Your task to perform on an android device: What's the news in theFalkland Islands? Image 0: 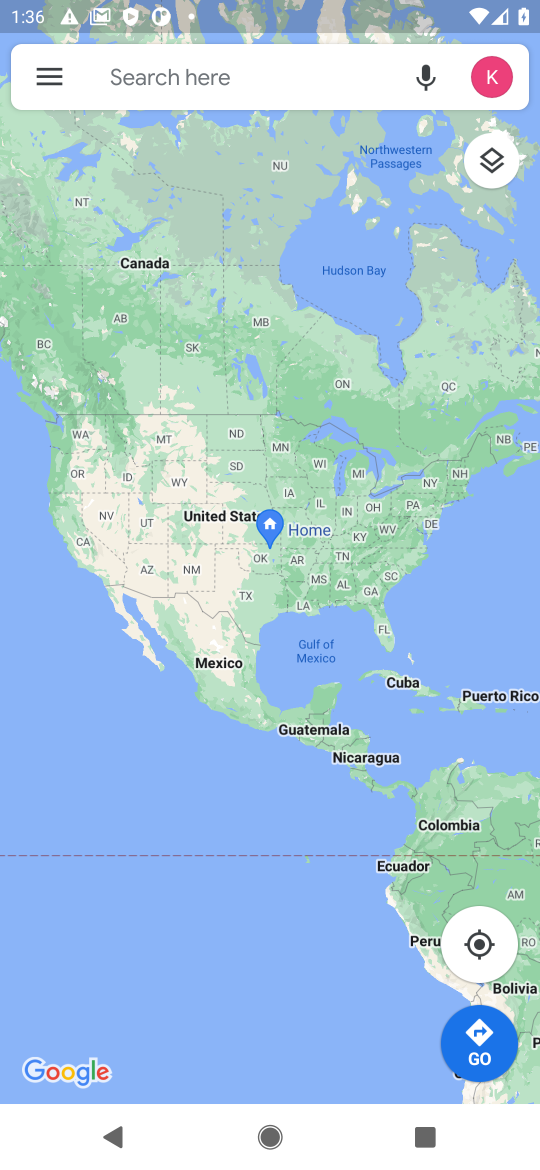
Step 0: press home button
Your task to perform on an android device: What's the news in theFalkland Islands? Image 1: 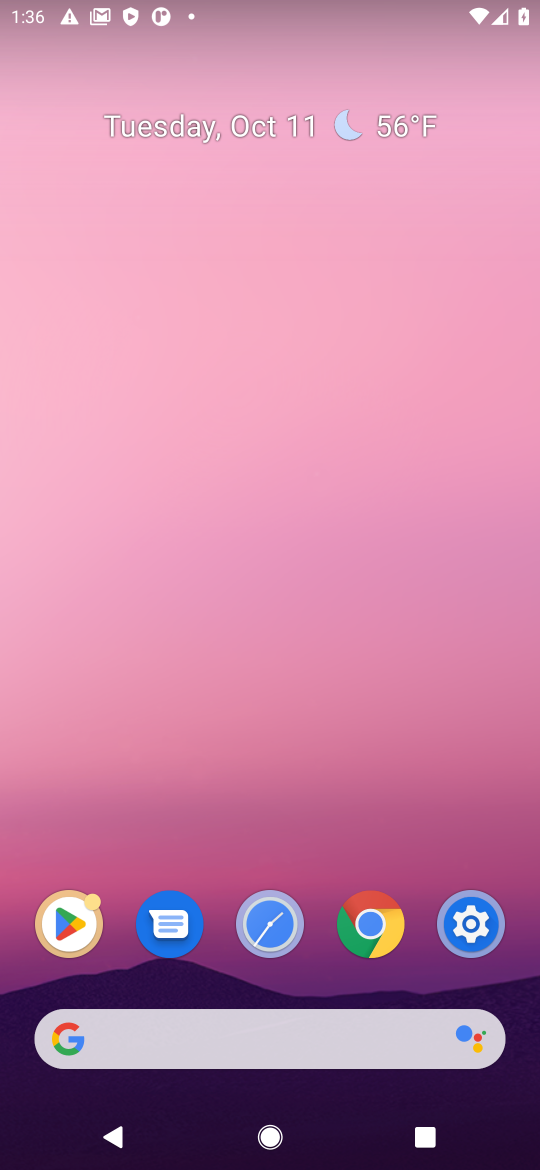
Step 1: drag from (303, 934) to (306, 92)
Your task to perform on an android device: What's the news in theFalkland Islands? Image 2: 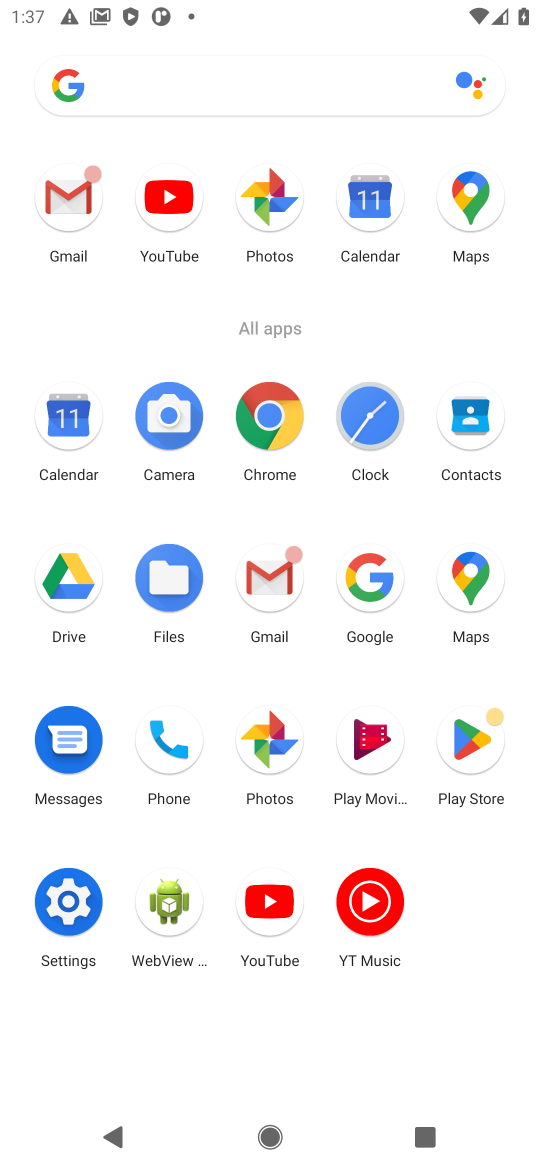
Step 2: click (272, 420)
Your task to perform on an android device: What's the news in theFalkland Islands? Image 3: 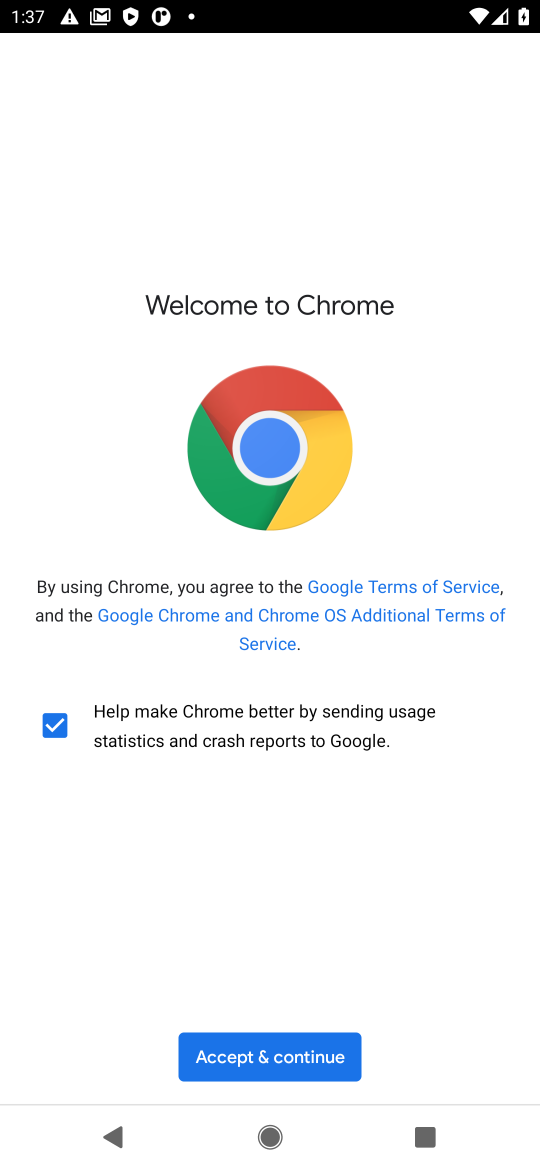
Step 3: click (275, 1046)
Your task to perform on an android device: What's the news in theFalkland Islands? Image 4: 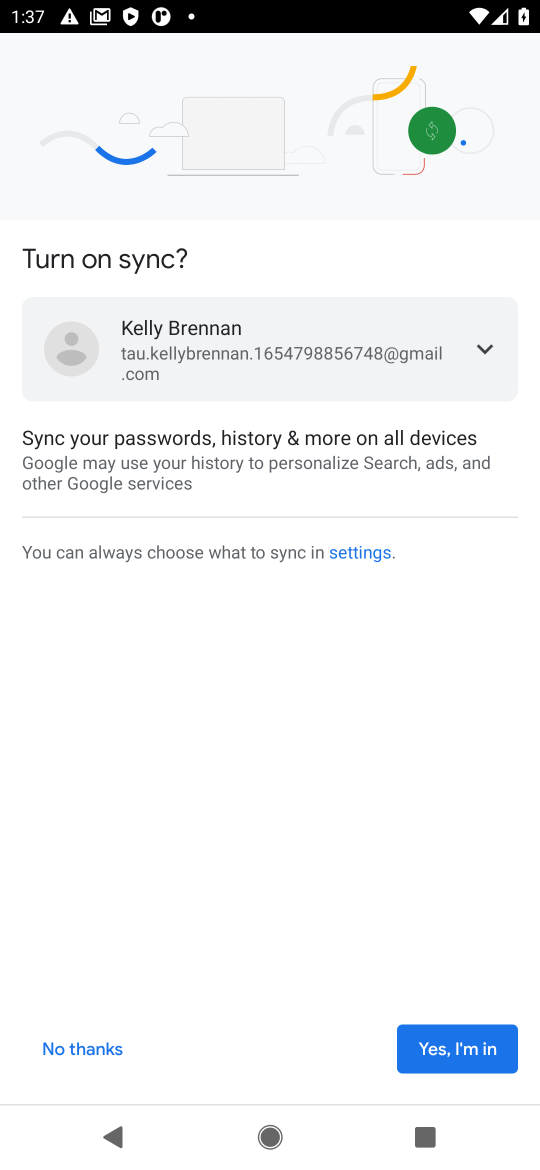
Step 4: click (474, 1049)
Your task to perform on an android device: What's the news in theFalkland Islands? Image 5: 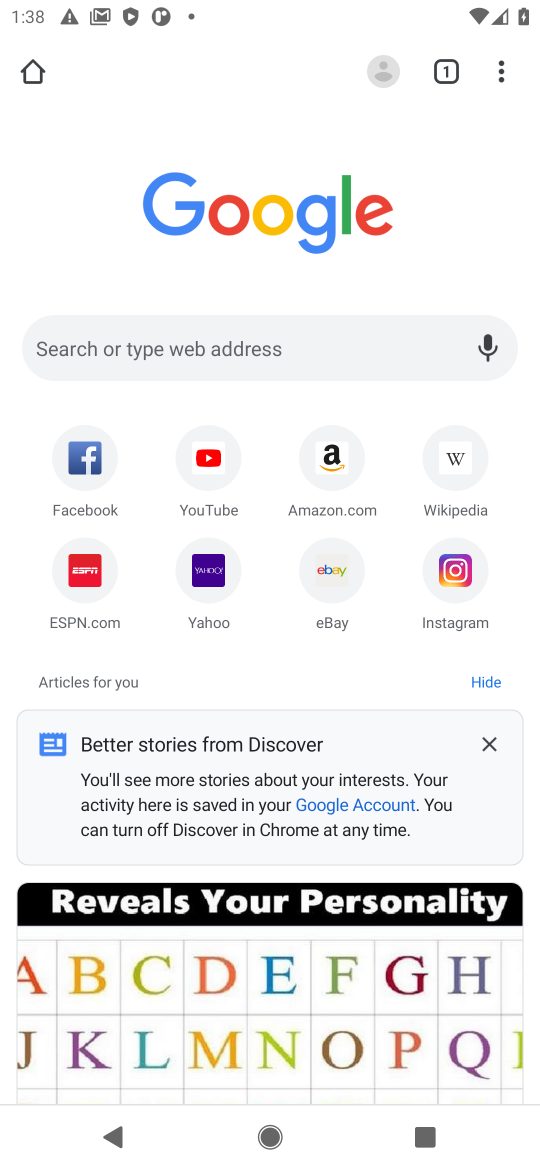
Step 5: press home button
Your task to perform on an android device: What's the news in theFalkland Islands? Image 6: 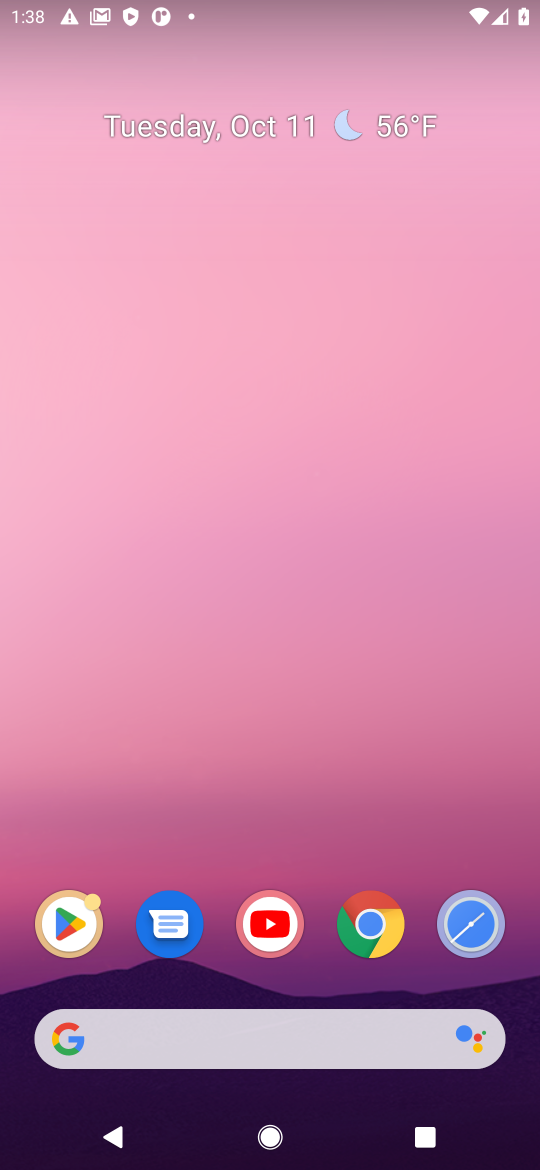
Step 6: click (375, 924)
Your task to perform on an android device: What's the news in theFalkland Islands? Image 7: 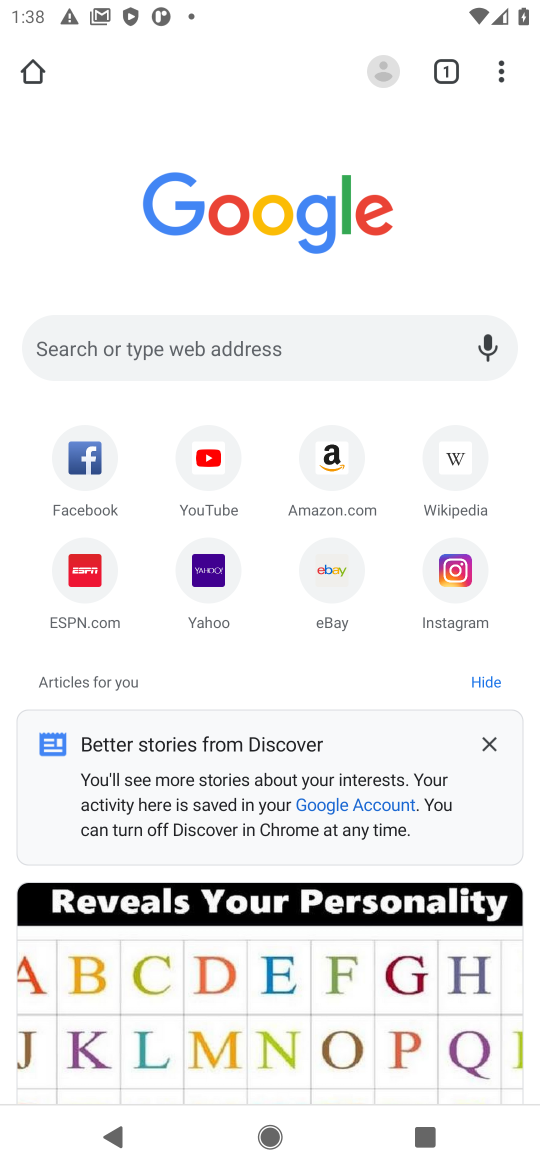
Step 7: click (250, 353)
Your task to perform on an android device: What's the news in theFalkland Islands? Image 8: 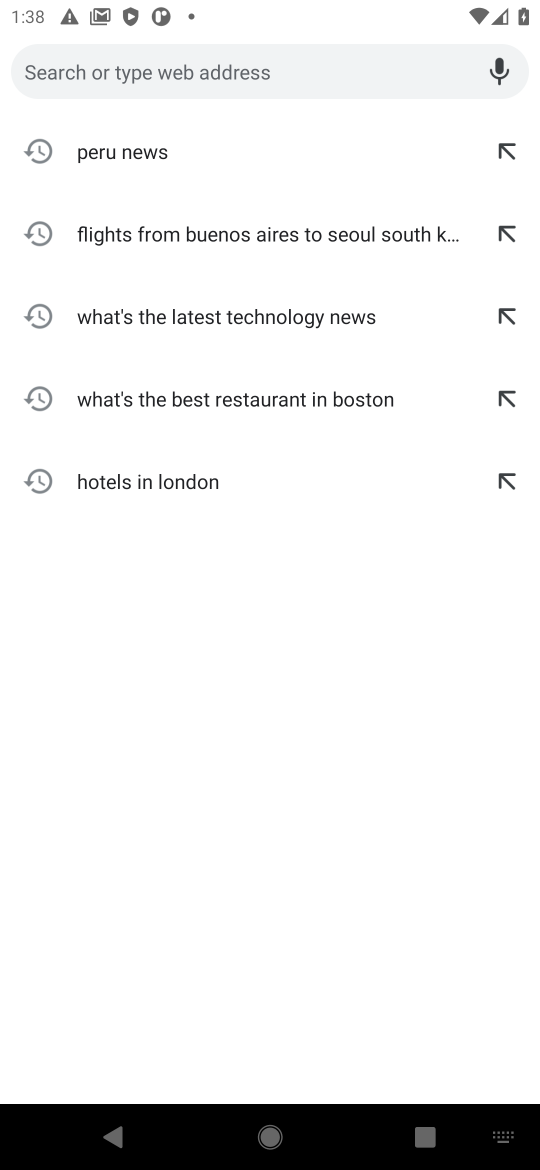
Step 8: type "What's the news in theFalkland Islands?"
Your task to perform on an android device: What's the news in theFalkland Islands? Image 9: 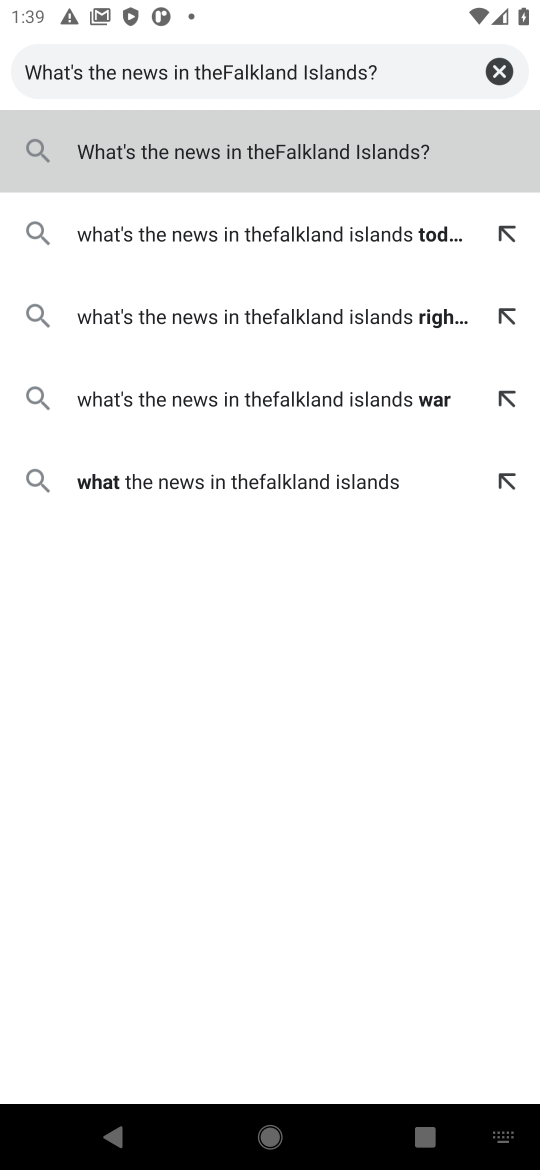
Step 9: type ""
Your task to perform on an android device: What's the news in theFalkland Islands? Image 10: 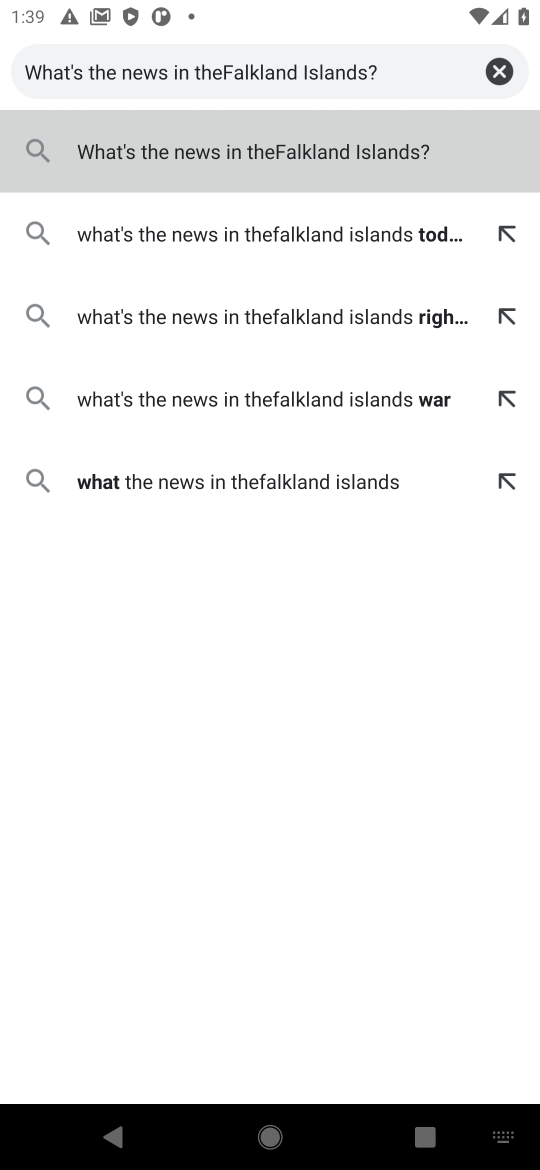
Step 10: click (210, 157)
Your task to perform on an android device: What's the news in theFalkland Islands? Image 11: 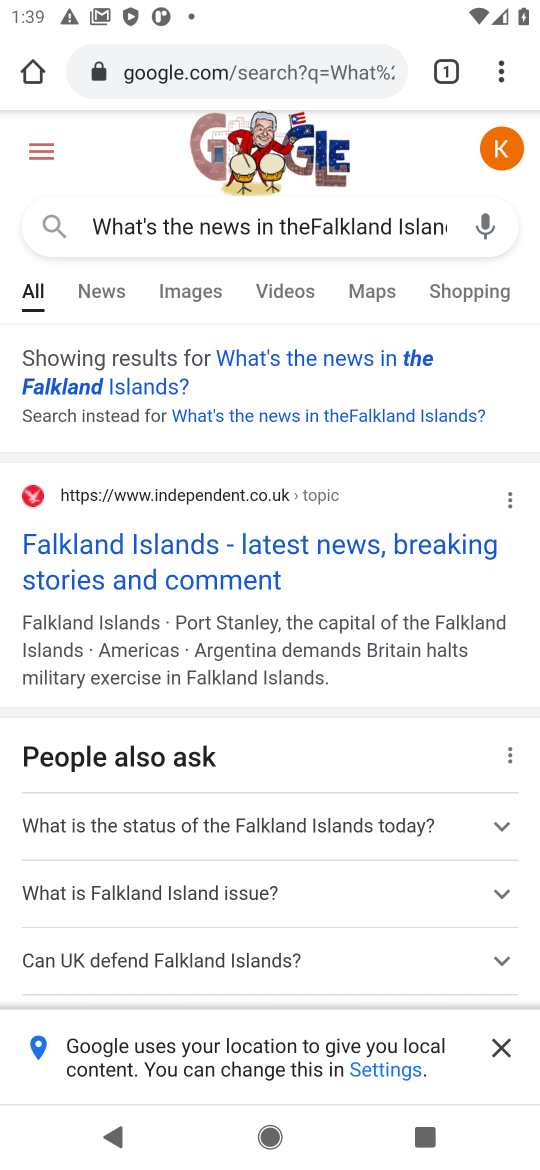
Step 11: click (272, 361)
Your task to perform on an android device: What's the news in theFalkland Islands? Image 12: 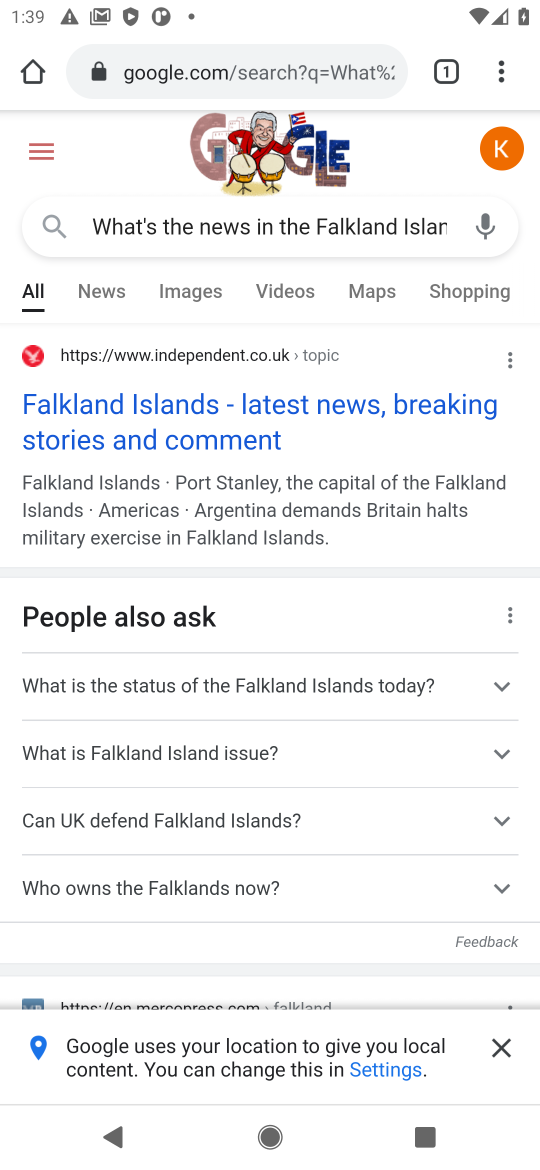
Step 12: click (269, 703)
Your task to perform on an android device: What's the news in theFalkland Islands? Image 13: 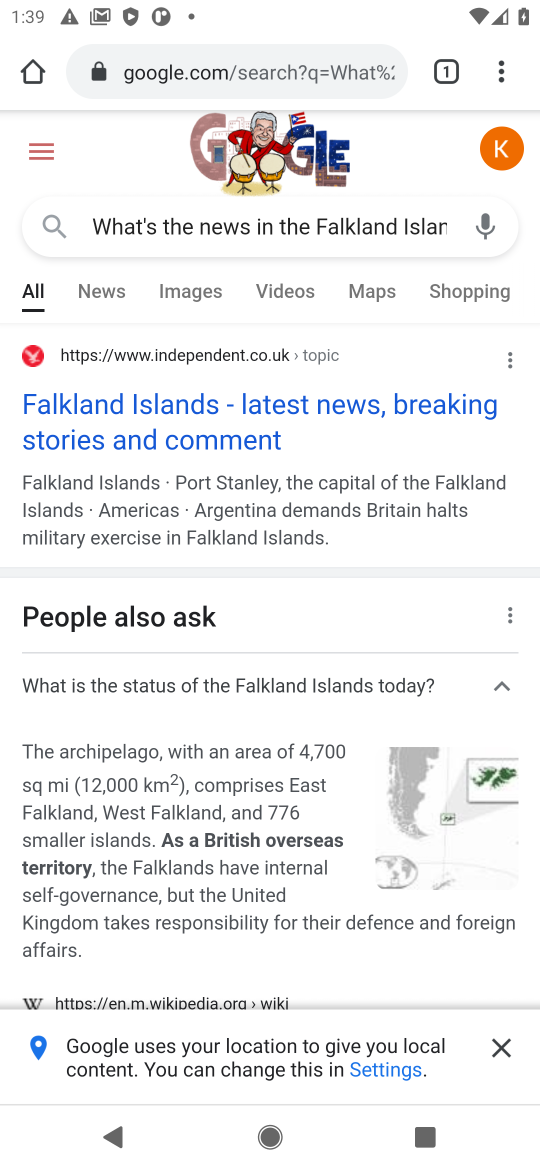
Step 13: task complete